Your task to perform on an android device: Go to Reddit.com Image 0: 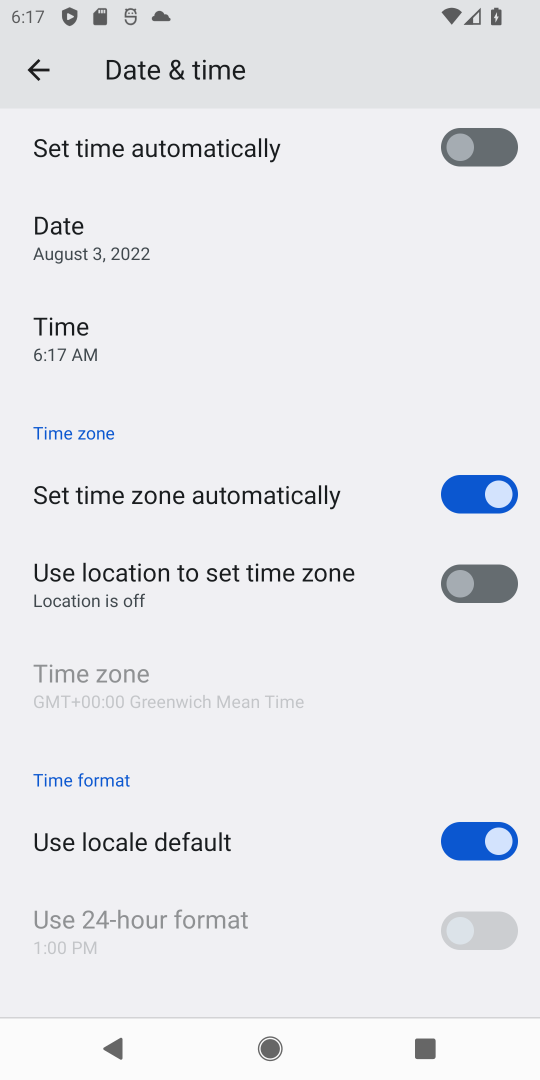
Step 0: press back button
Your task to perform on an android device: Go to Reddit.com Image 1: 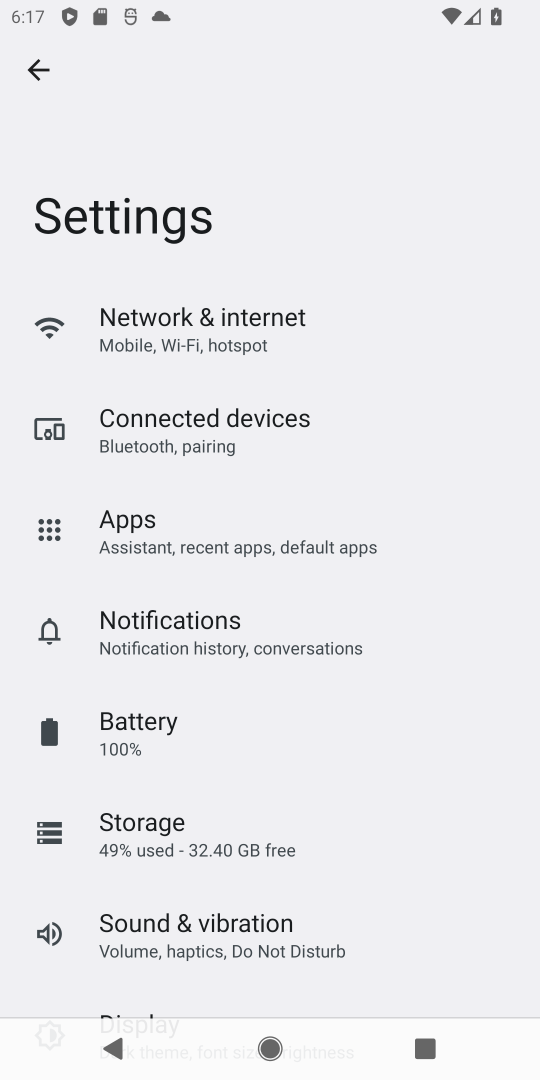
Step 1: press back button
Your task to perform on an android device: Go to Reddit.com Image 2: 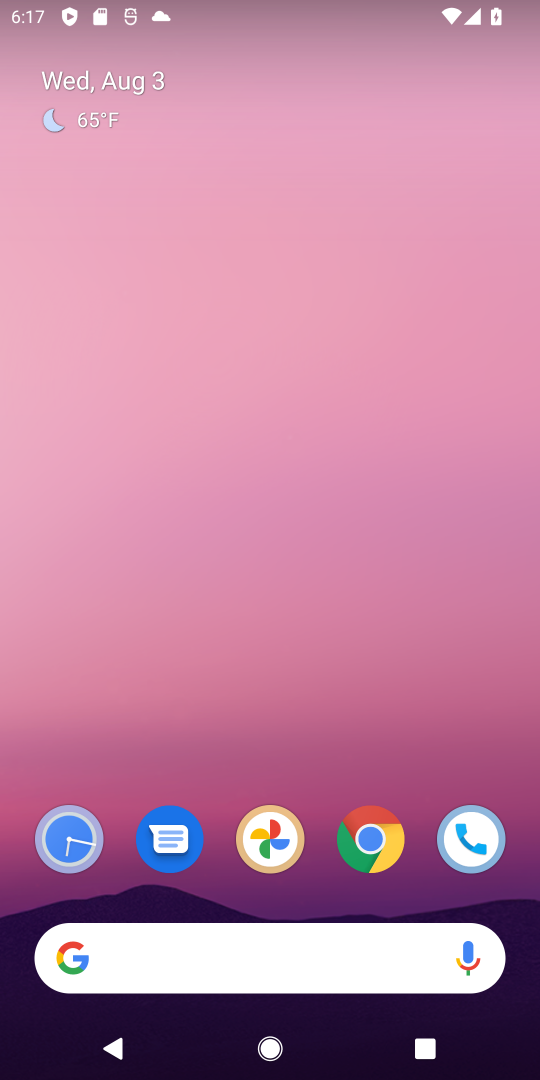
Step 2: click (360, 847)
Your task to perform on an android device: Go to Reddit.com Image 3: 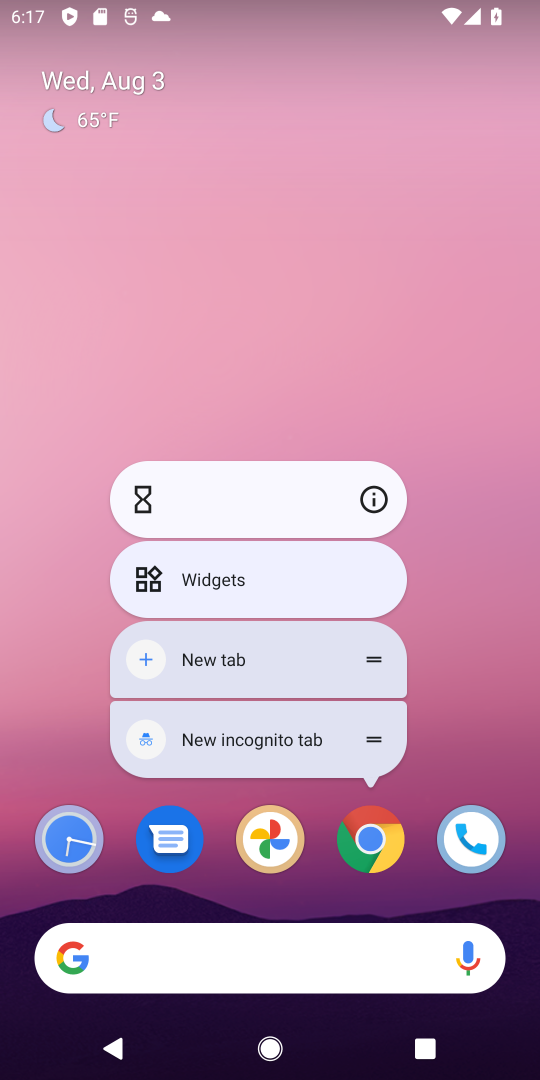
Step 3: click (358, 849)
Your task to perform on an android device: Go to Reddit.com Image 4: 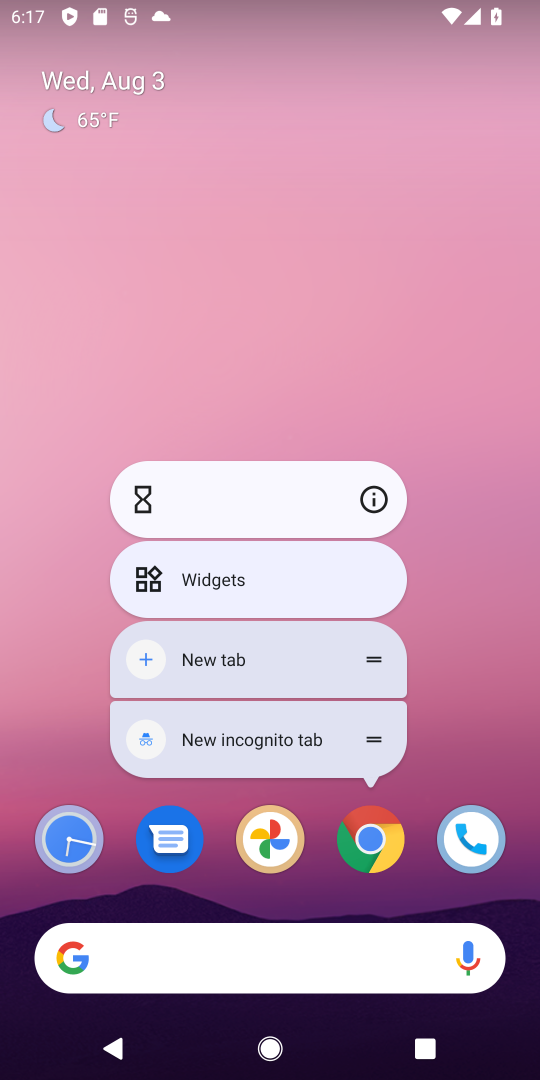
Step 4: click (364, 837)
Your task to perform on an android device: Go to Reddit.com Image 5: 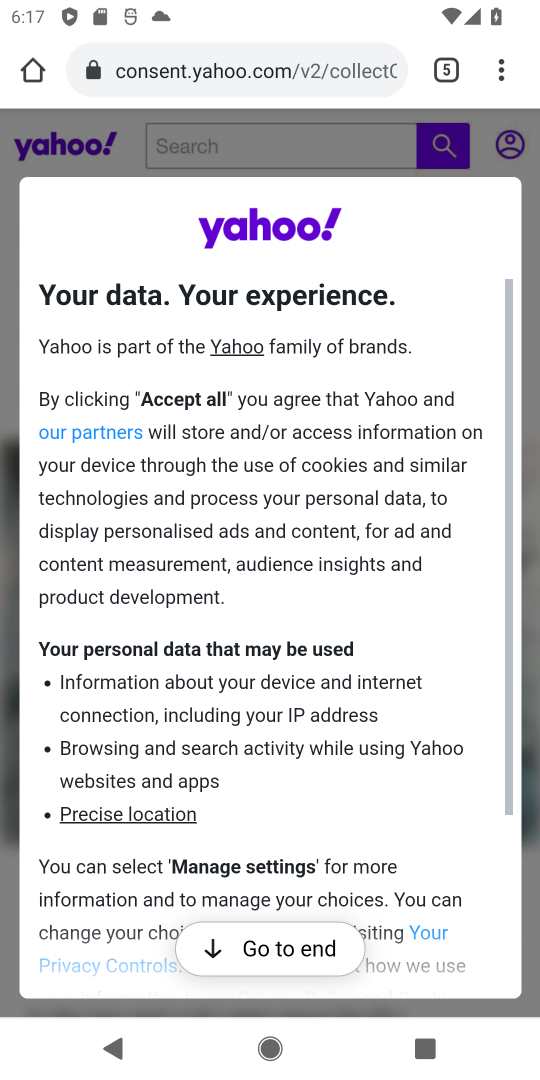
Step 5: click (454, 65)
Your task to perform on an android device: Go to Reddit.com Image 6: 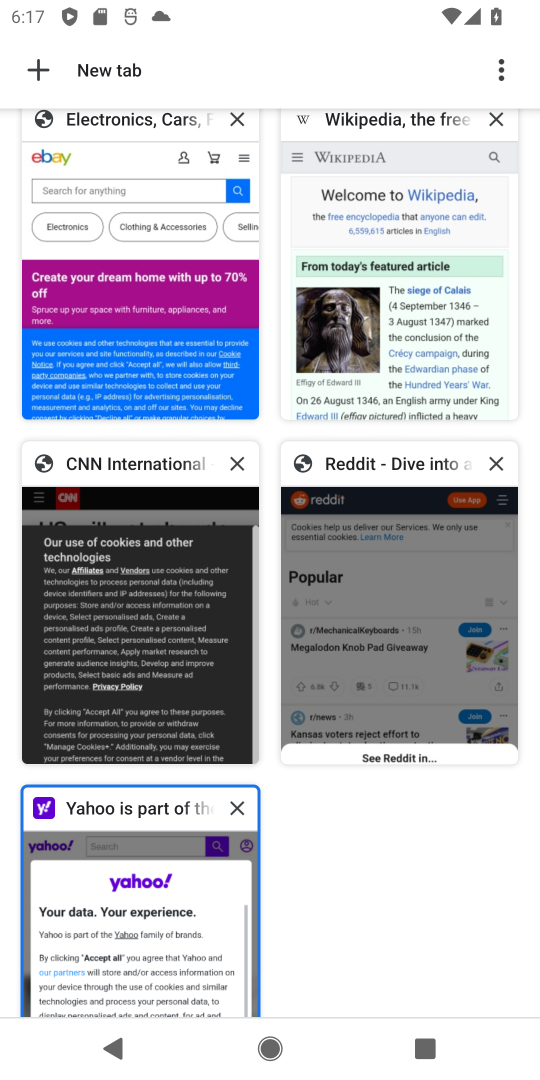
Step 6: click (40, 65)
Your task to perform on an android device: Go to Reddit.com Image 7: 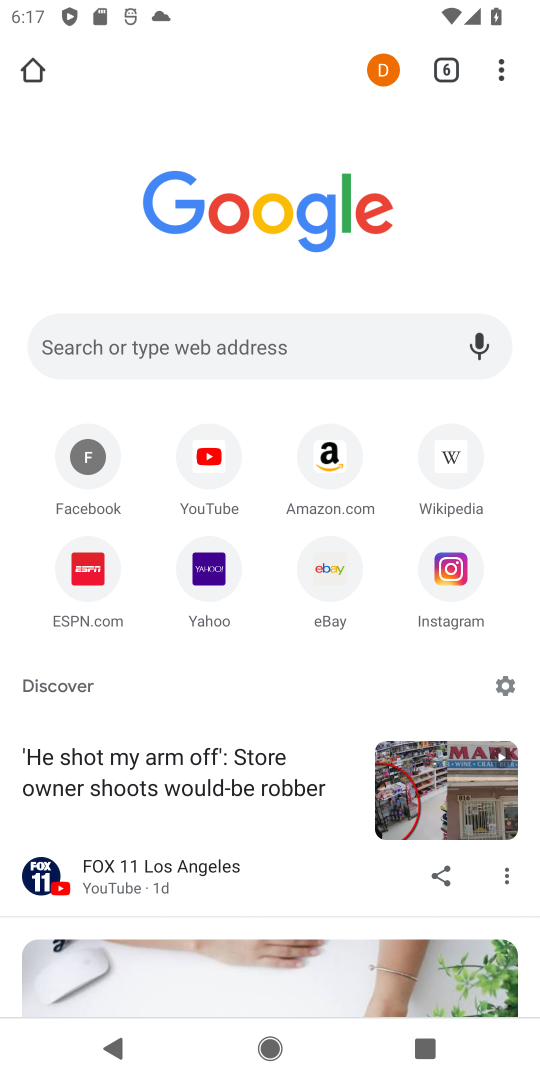
Step 7: click (206, 345)
Your task to perform on an android device: Go to Reddit.com Image 8: 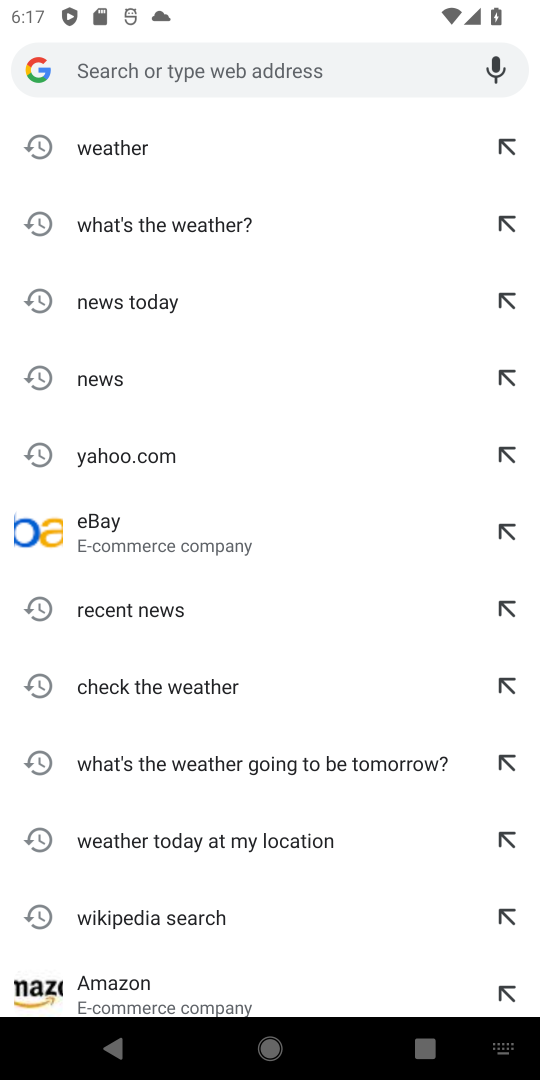
Step 8: type "reddit.com"
Your task to perform on an android device: Go to Reddit.com Image 9: 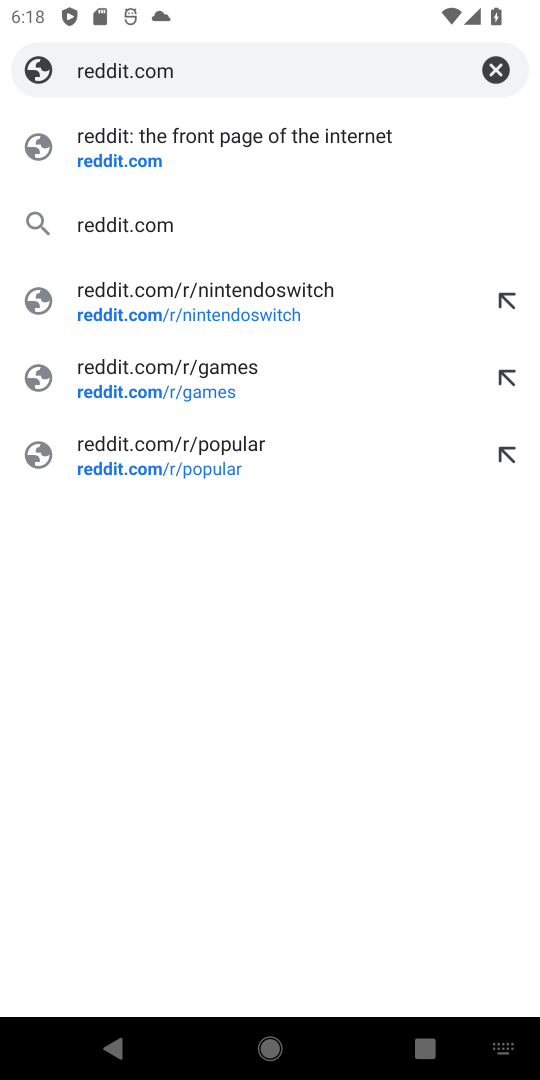
Step 9: click (207, 147)
Your task to perform on an android device: Go to Reddit.com Image 10: 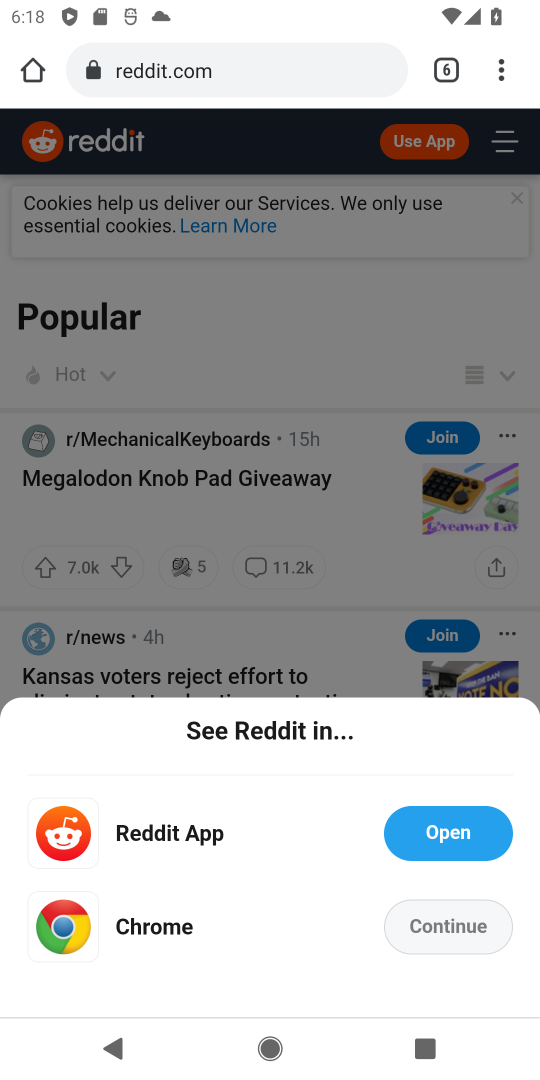
Step 10: task complete